Your task to perform on an android device: Open notification settings Image 0: 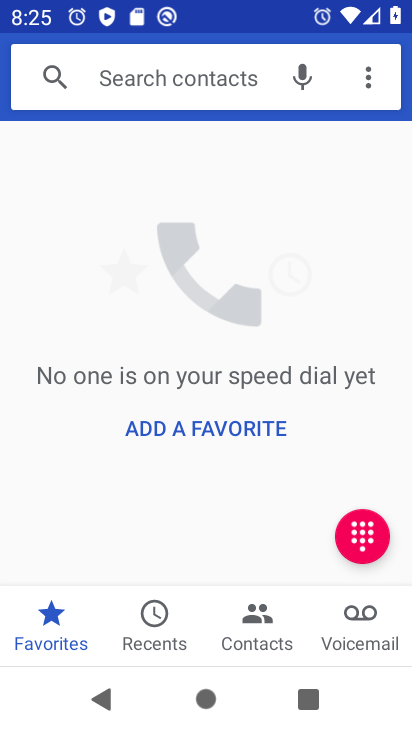
Step 0: press home button
Your task to perform on an android device: Open notification settings Image 1: 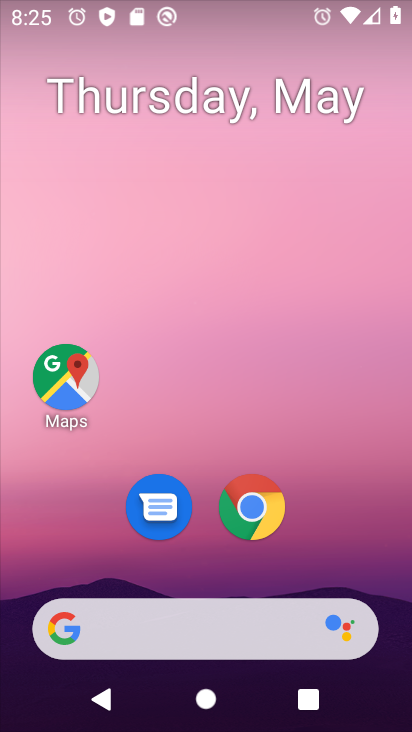
Step 1: drag from (200, 483) to (277, 2)
Your task to perform on an android device: Open notification settings Image 2: 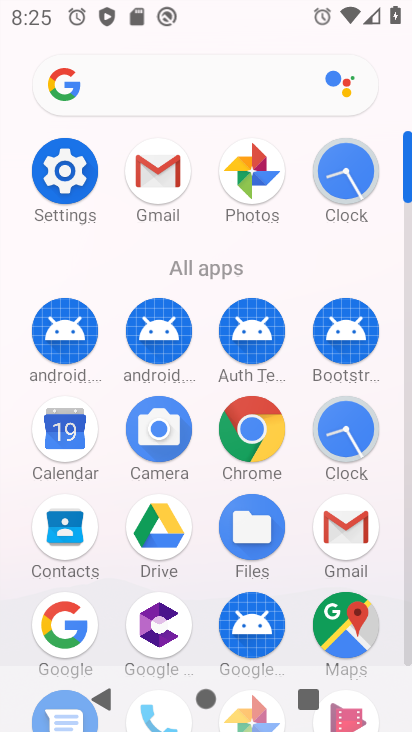
Step 2: click (77, 179)
Your task to perform on an android device: Open notification settings Image 3: 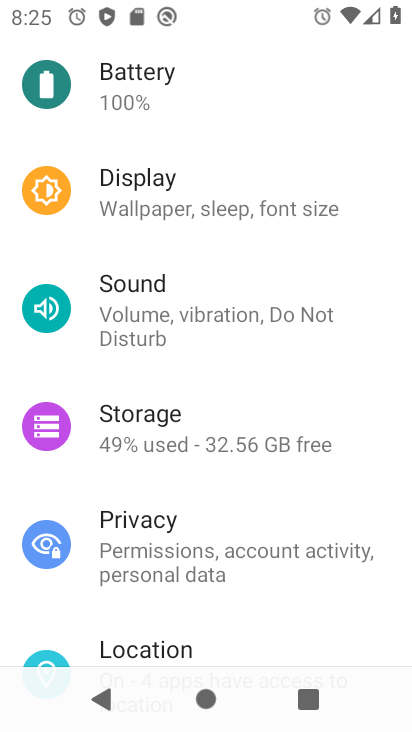
Step 3: drag from (198, 178) to (186, 622)
Your task to perform on an android device: Open notification settings Image 4: 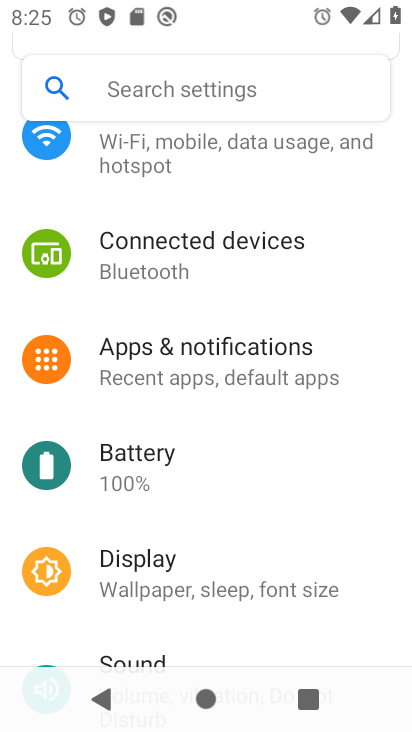
Step 4: click (203, 364)
Your task to perform on an android device: Open notification settings Image 5: 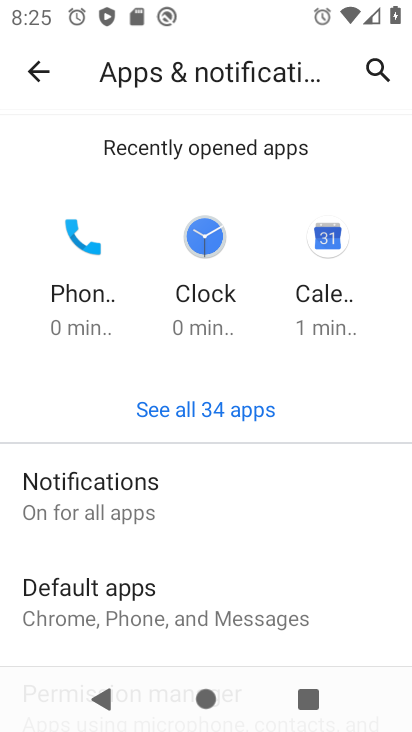
Step 5: click (200, 483)
Your task to perform on an android device: Open notification settings Image 6: 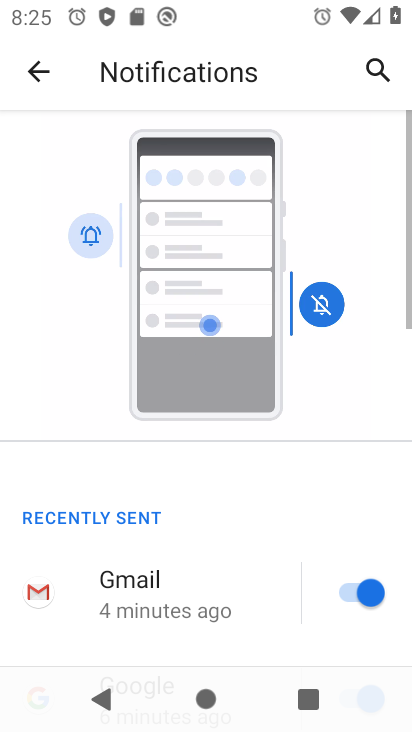
Step 6: task complete